Your task to perform on an android device: change notification settings in the gmail app Image 0: 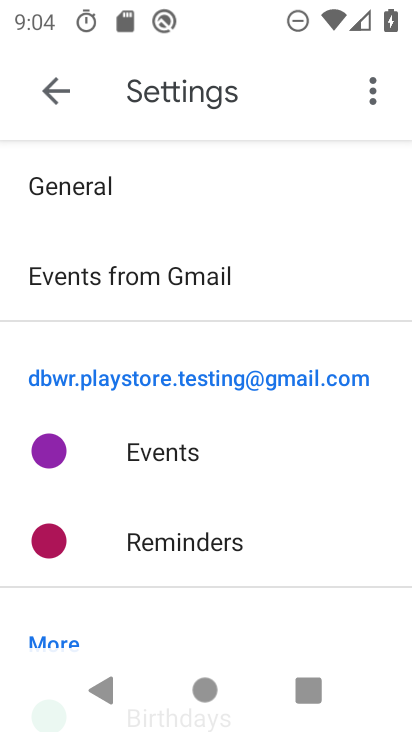
Step 0: press home button
Your task to perform on an android device: change notification settings in the gmail app Image 1: 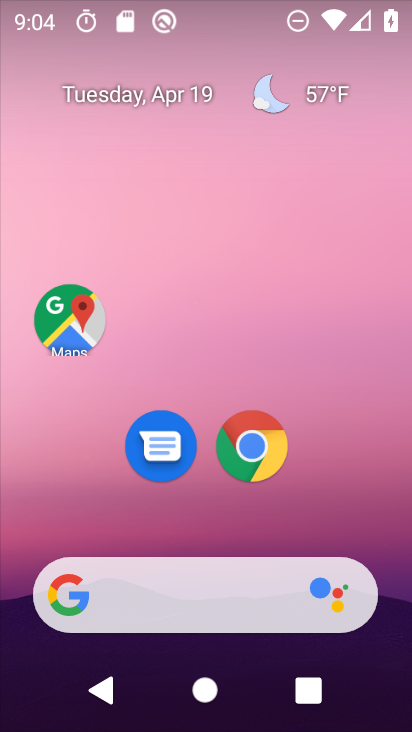
Step 1: drag from (331, 344) to (343, 158)
Your task to perform on an android device: change notification settings in the gmail app Image 2: 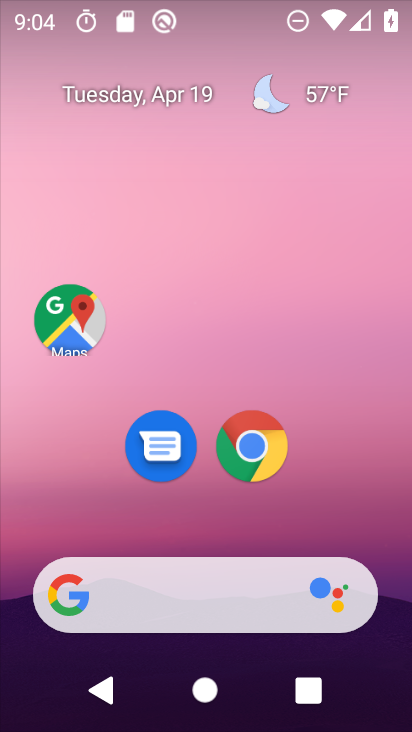
Step 2: drag from (352, 484) to (315, 86)
Your task to perform on an android device: change notification settings in the gmail app Image 3: 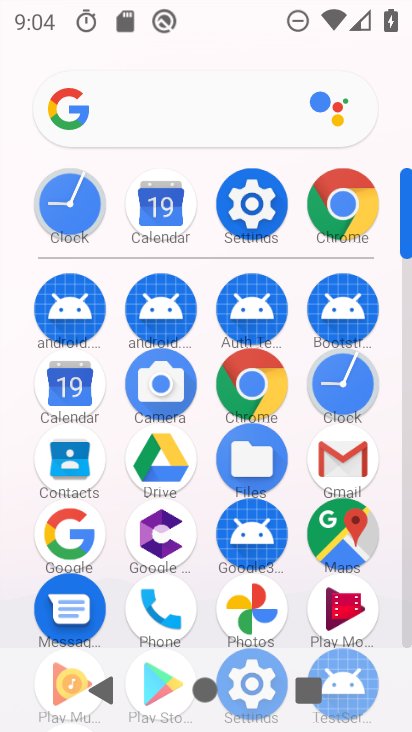
Step 3: click (348, 459)
Your task to perform on an android device: change notification settings in the gmail app Image 4: 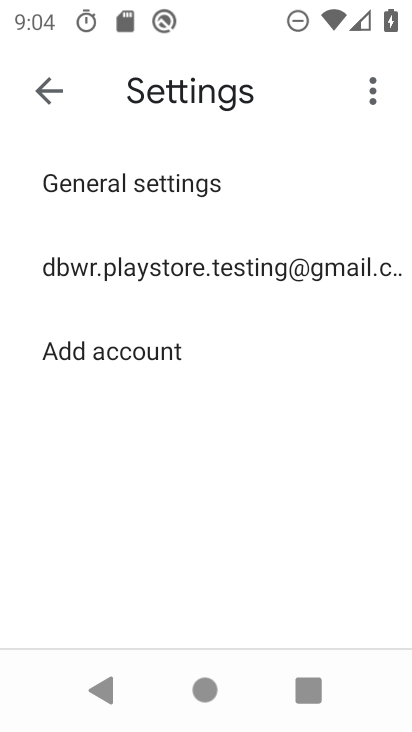
Step 4: click (163, 274)
Your task to perform on an android device: change notification settings in the gmail app Image 5: 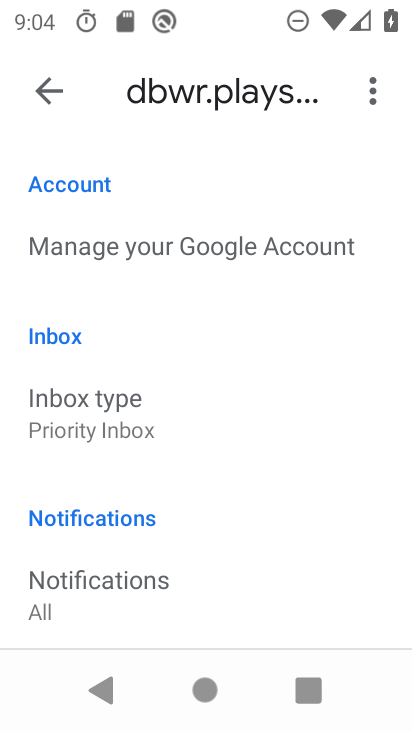
Step 5: drag from (113, 620) to (149, 236)
Your task to perform on an android device: change notification settings in the gmail app Image 6: 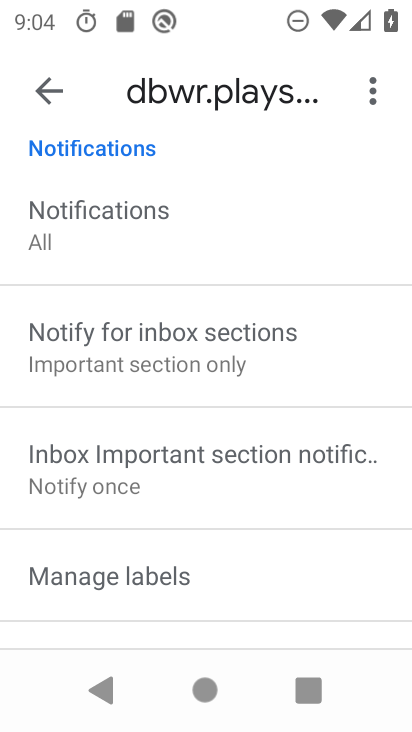
Step 6: drag from (136, 620) to (164, 376)
Your task to perform on an android device: change notification settings in the gmail app Image 7: 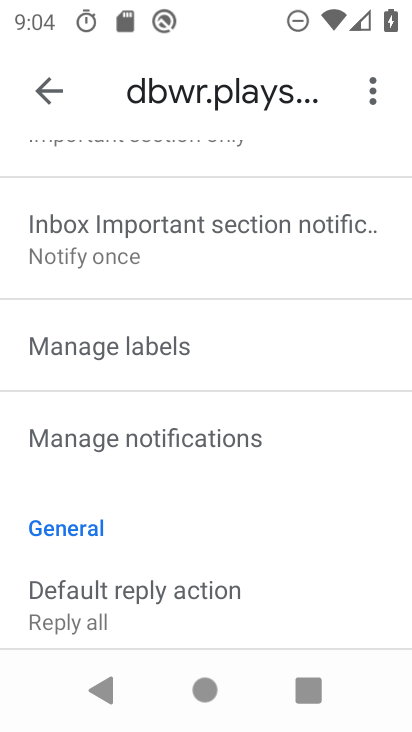
Step 7: click (125, 437)
Your task to perform on an android device: change notification settings in the gmail app Image 8: 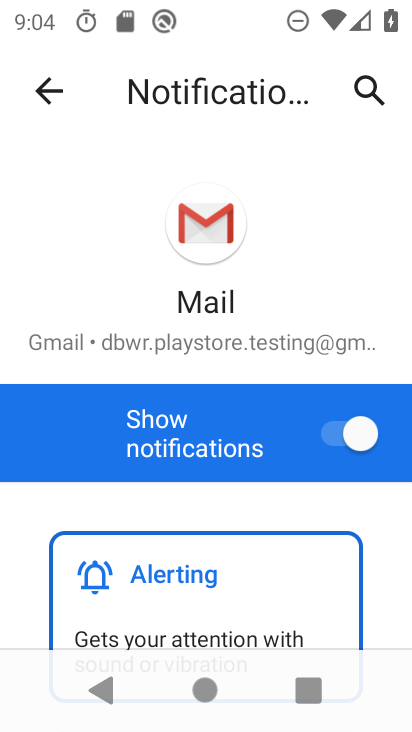
Step 8: click (345, 438)
Your task to perform on an android device: change notification settings in the gmail app Image 9: 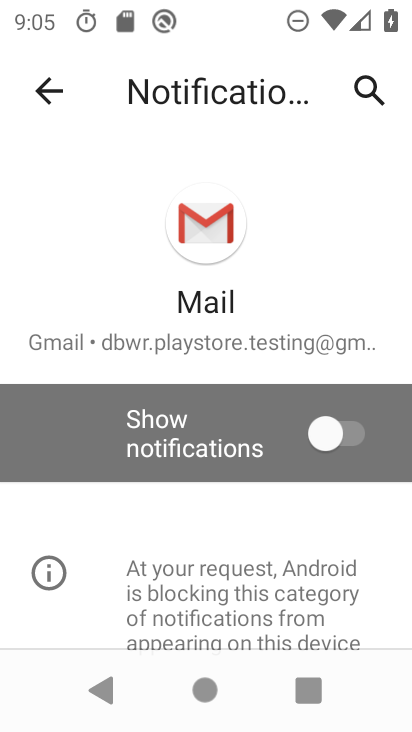
Step 9: task complete